Your task to perform on an android device: find which apps use the phone's location Image 0: 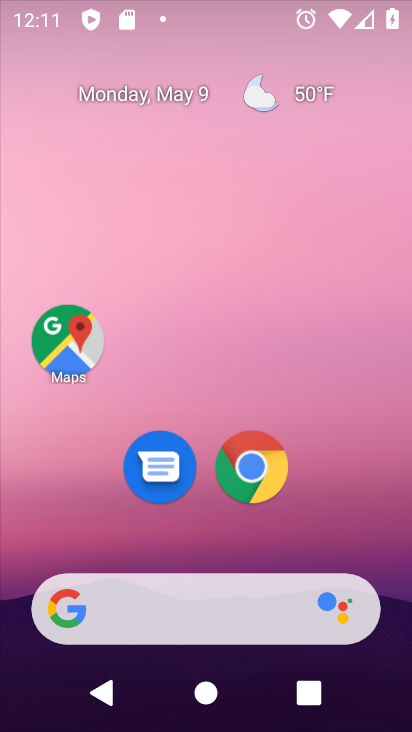
Step 0: drag from (225, 352) to (251, 27)
Your task to perform on an android device: find which apps use the phone's location Image 1: 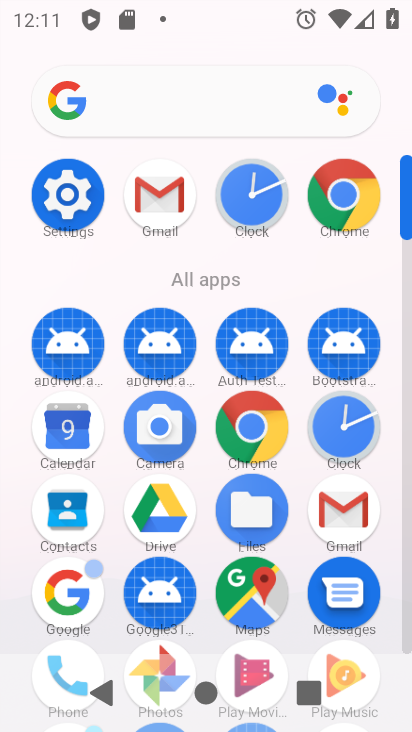
Step 1: click (345, 420)
Your task to perform on an android device: find which apps use the phone's location Image 2: 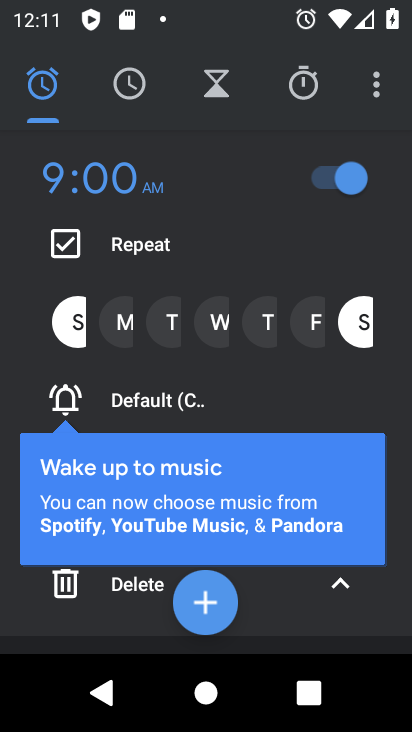
Step 2: press home button
Your task to perform on an android device: find which apps use the phone's location Image 3: 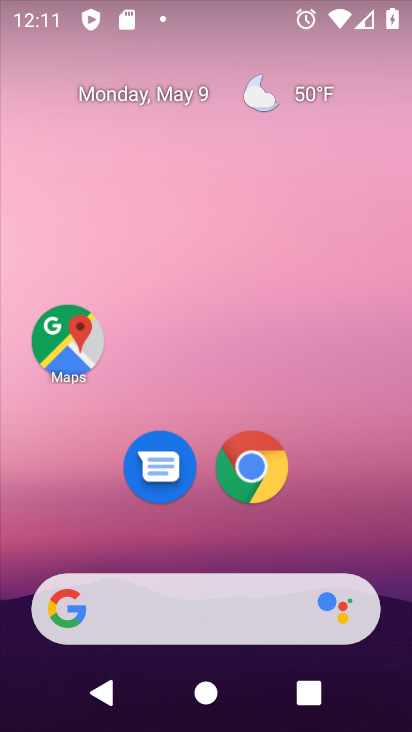
Step 3: drag from (215, 542) to (239, 36)
Your task to perform on an android device: find which apps use the phone's location Image 4: 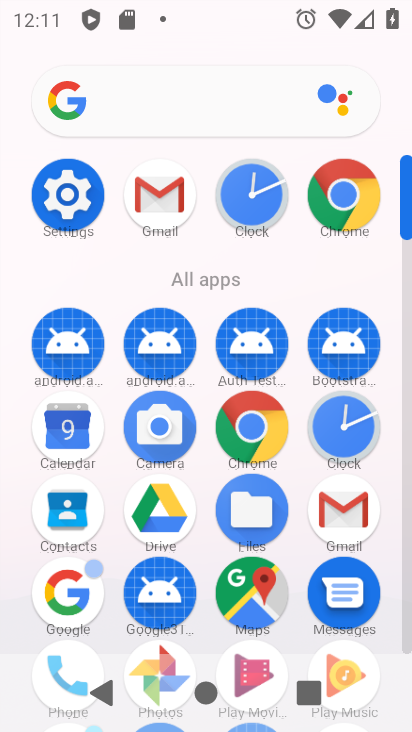
Step 4: click (58, 194)
Your task to perform on an android device: find which apps use the phone's location Image 5: 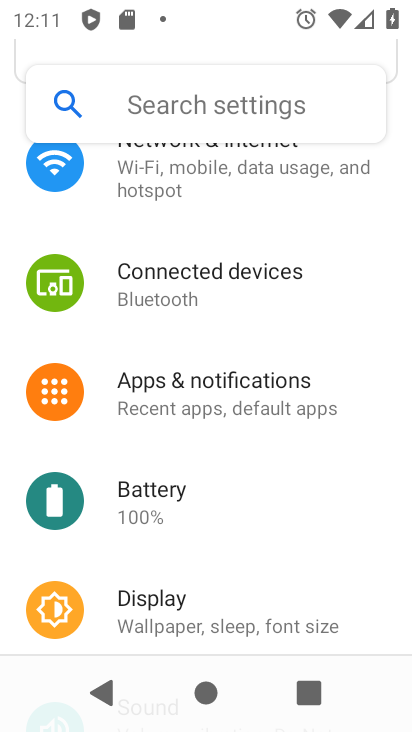
Step 5: drag from (215, 565) to (243, 88)
Your task to perform on an android device: find which apps use the phone's location Image 6: 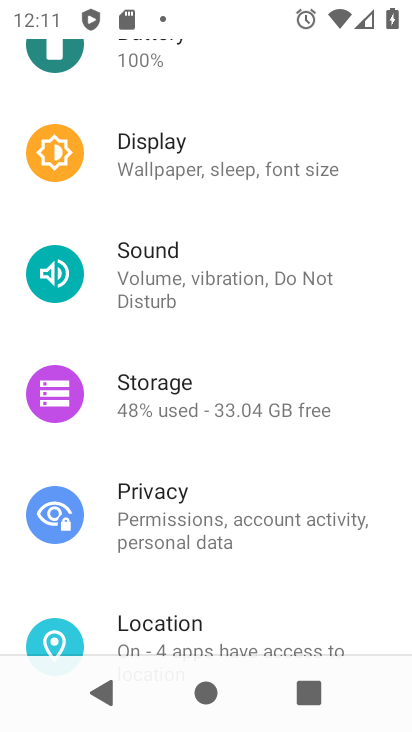
Step 6: click (213, 626)
Your task to perform on an android device: find which apps use the phone's location Image 7: 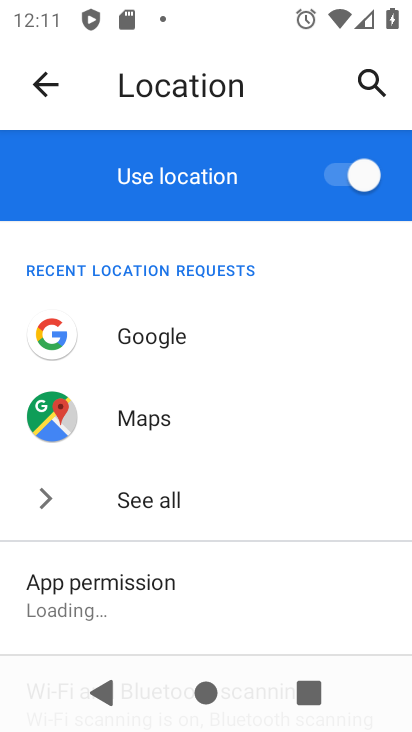
Step 7: drag from (201, 586) to (210, 136)
Your task to perform on an android device: find which apps use the phone's location Image 8: 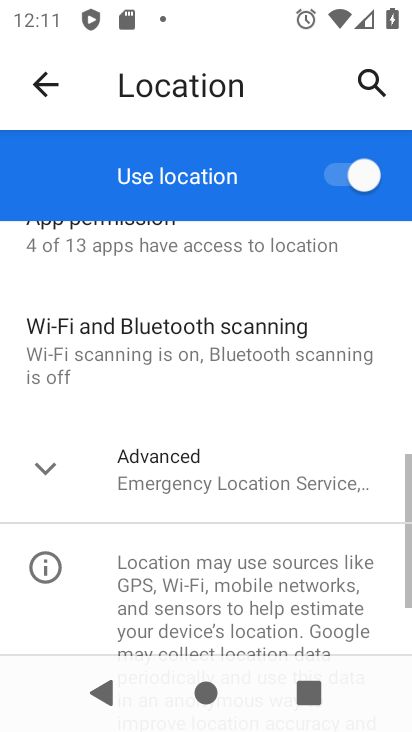
Step 8: click (146, 467)
Your task to perform on an android device: find which apps use the phone's location Image 9: 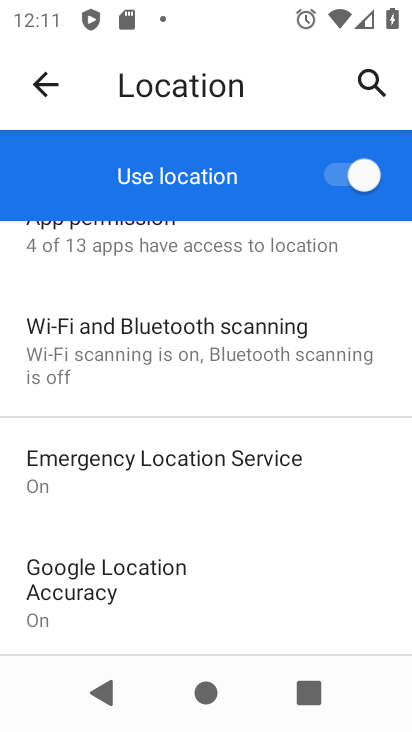
Step 9: click (163, 673)
Your task to perform on an android device: find which apps use the phone's location Image 10: 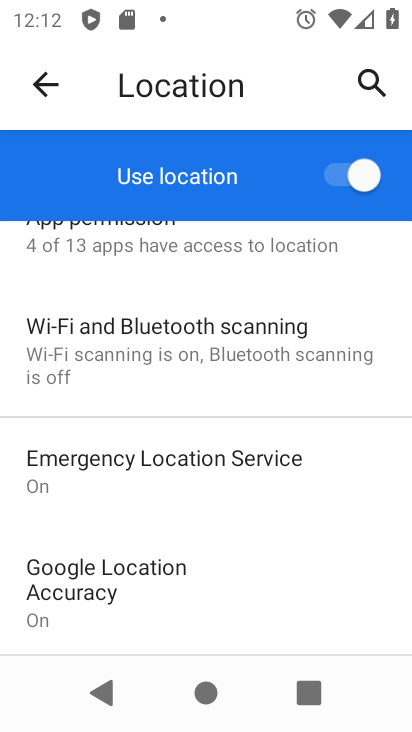
Step 10: click (165, 239)
Your task to perform on an android device: find which apps use the phone's location Image 11: 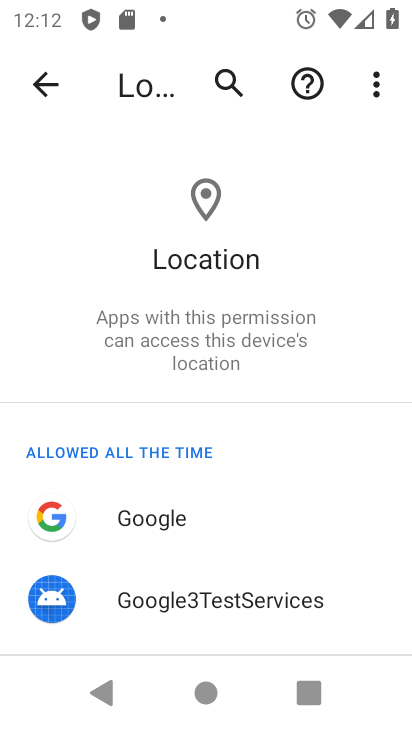
Step 11: task complete